Your task to perform on an android device: delete location history Image 0: 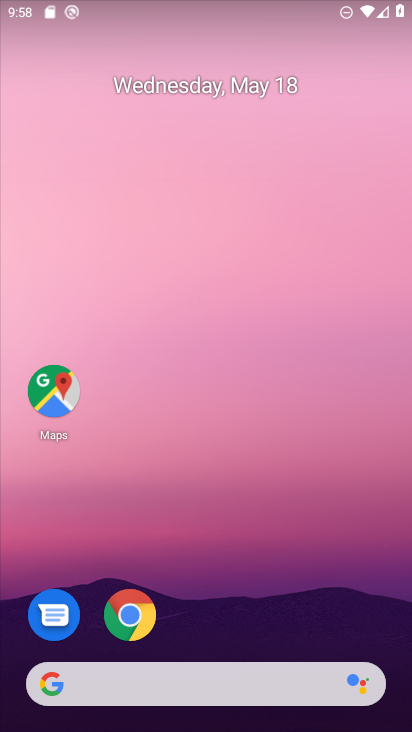
Step 0: drag from (223, 593) to (174, 115)
Your task to perform on an android device: delete location history Image 1: 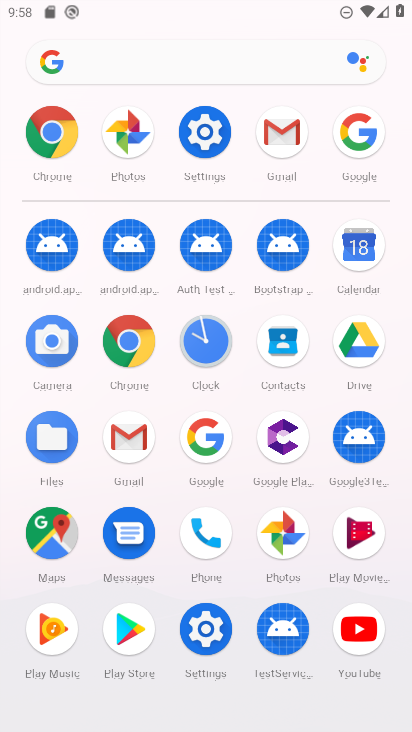
Step 1: click (206, 125)
Your task to perform on an android device: delete location history Image 2: 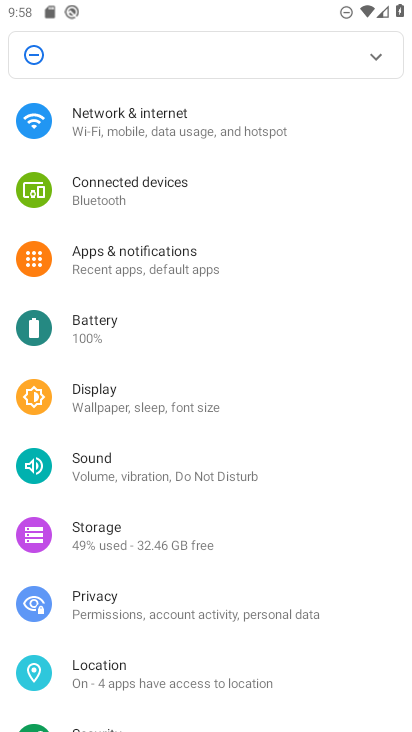
Step 2: click (113, 665)
Your task to perform on an android device: delete location history Image 3: 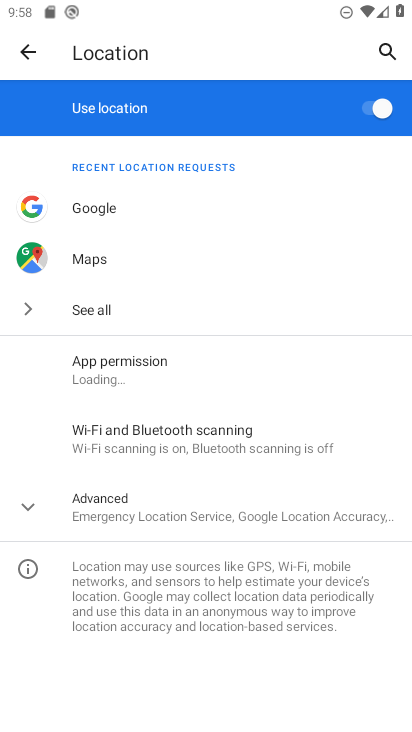
Step 3: drag from (231, 582) to (204, 298)
Your task to perform on an android device: delete location history Image 4: 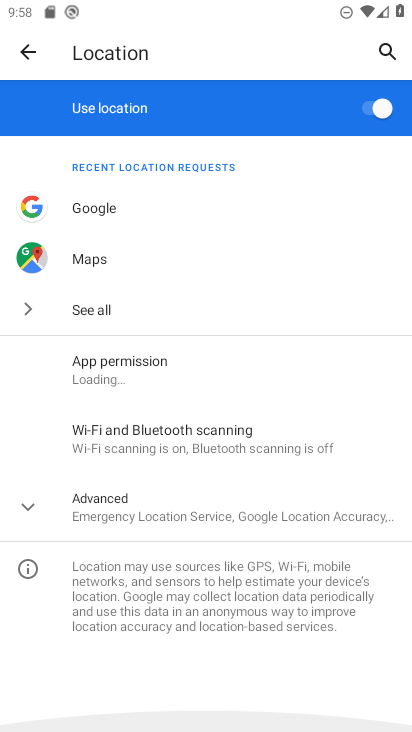
Step 4: click (86, 505)
Your task to perform on an android device: delete location history Image 5: 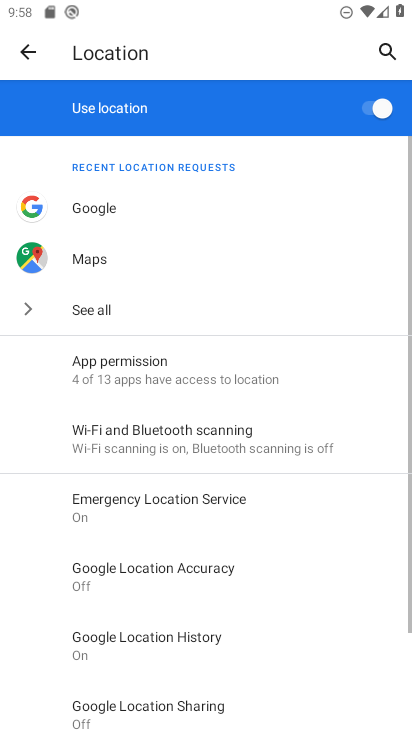
Step 5: drag from (193, 549) to (176, 370)
Your task to perform on an android device: delete location history Image 6: 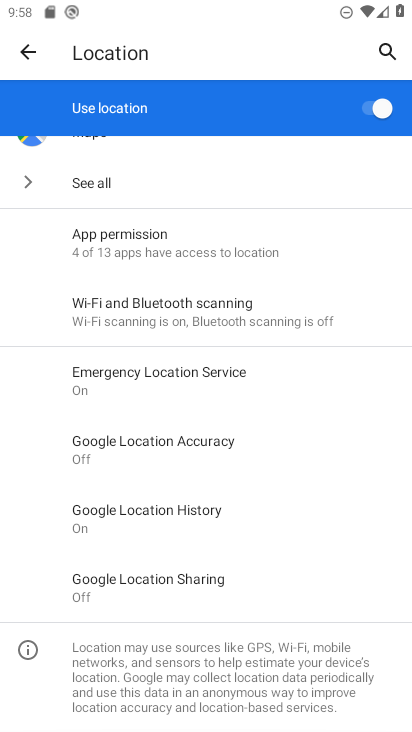
Step 6: click (130, 502)
Your task to perform on an android device: delete location history Image 7: 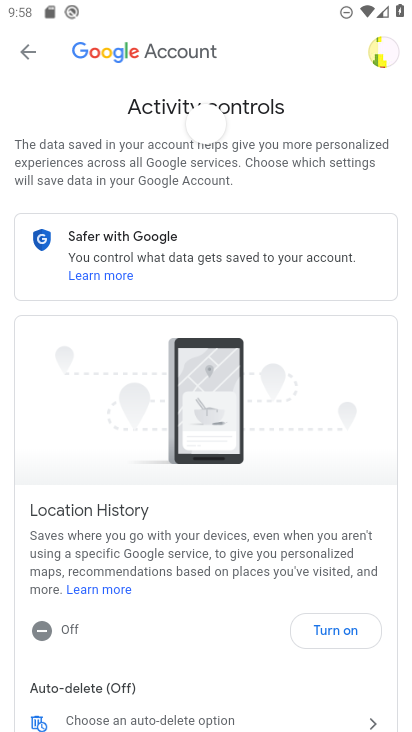
Step 7: drag from (222, 573) to (230, 21)
Your task to perform on an android device: delete location history Image 8: 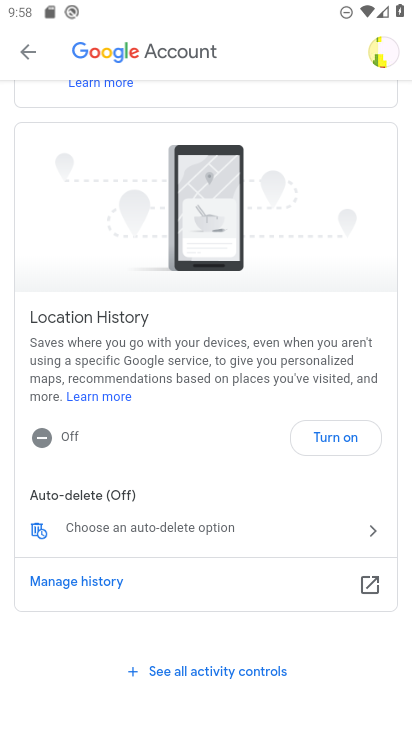
Step 8: click (35, 529)
Your task to perform on an android device: delete location history Image 9: 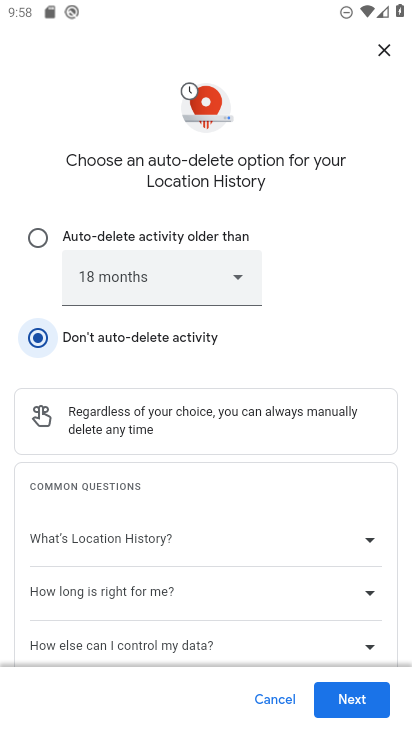
Step 9: click (357, 709)
Your task to perform on an android device: delete location history Image 10: 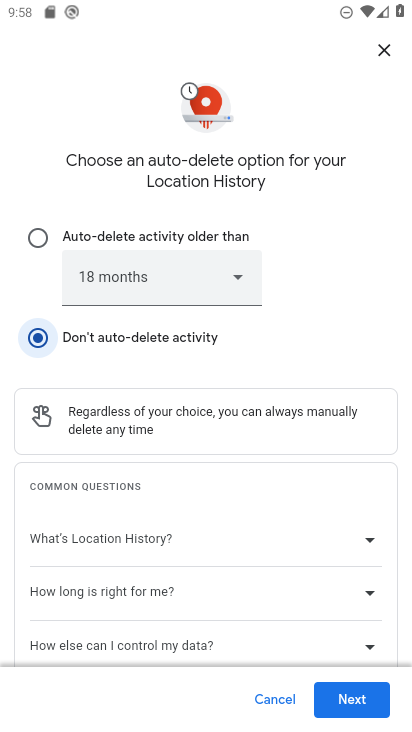
Step 10: click (346, 700)
Your task to perform on an android device: delete location history Image 11: 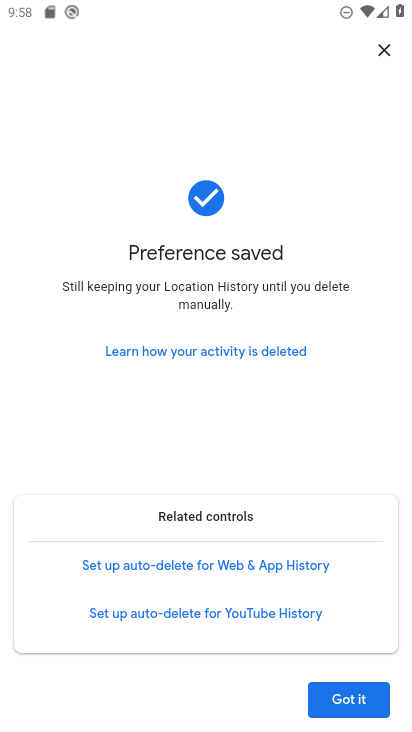
Step 11: click (346, 700)
Your task to perform on an android device: delete location history Image 12: 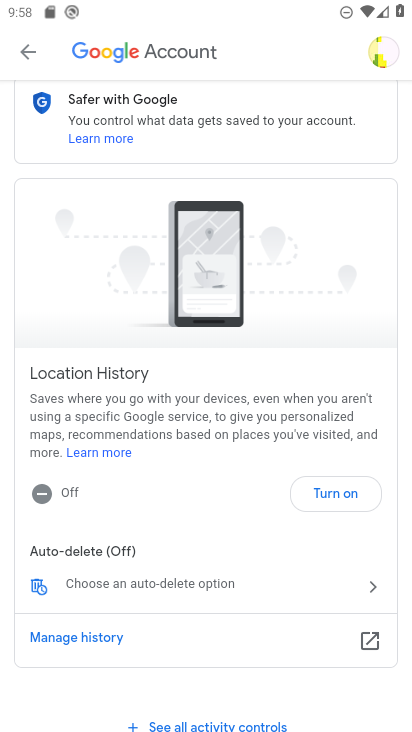
Step 12: task complete